Your task to perform on an android device: delete the emails in spam in the gmail app Image 0: 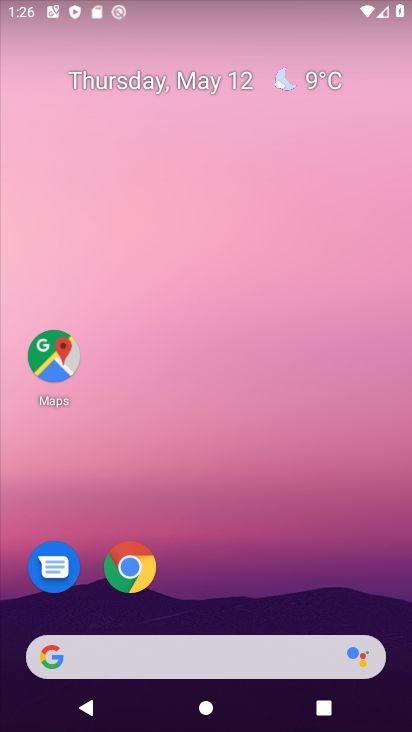
Step 0: drag from (232, 597) to (237, 42)
Your task to perform on an android device: delete the emails in spam in the gmail app Image 1: 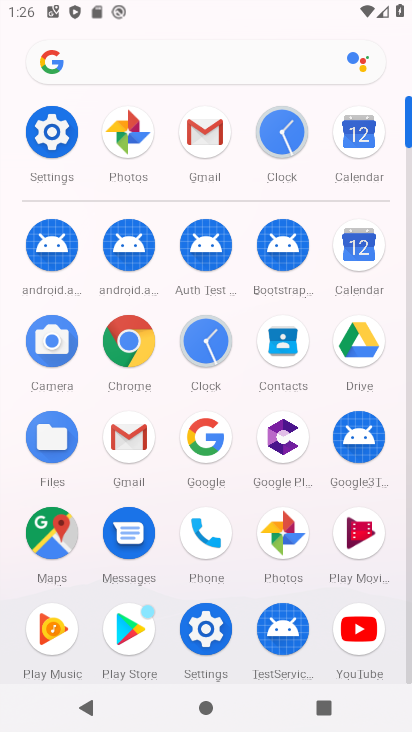
Step 1: click (128, 428)
Your task to perform on an android device: delete the emails in spam in the gmail app Image 2: 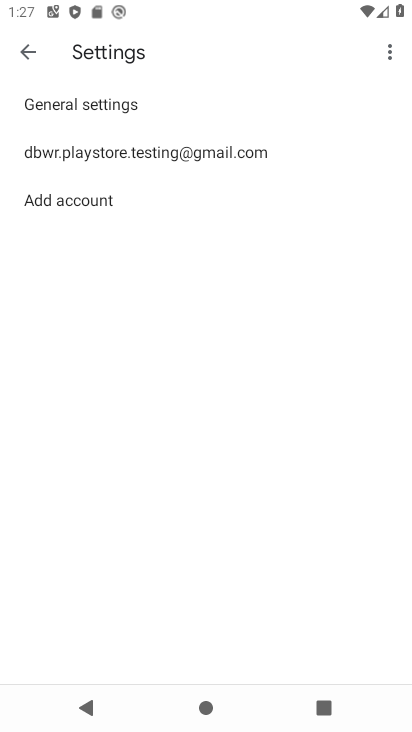
Step 2: click (36, 52)
Your task to perform on an android device: delete the emails in spam in the gmail app Image 3: 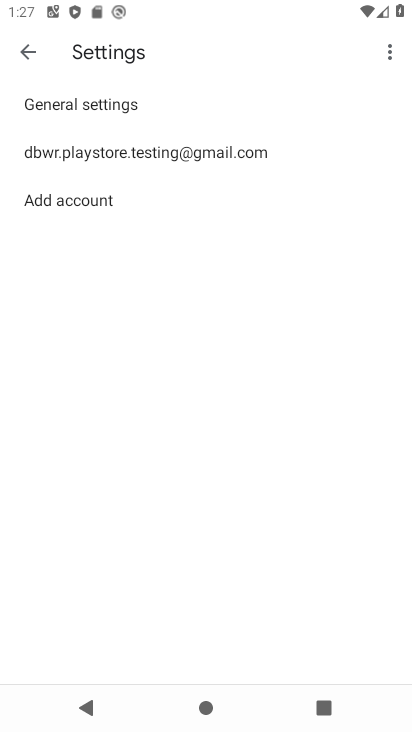
Step 3: click (25, 52)
Your task to perform on an android device: delete the emails in spam in the gmail app Image 4: 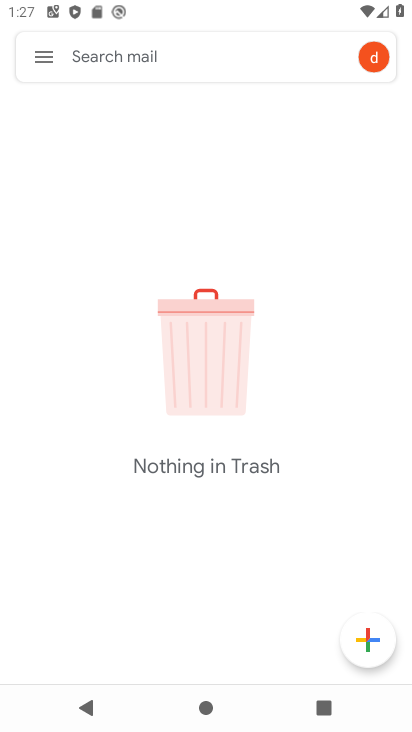
Step 4: click (51, 52)
Your task to perform on an android device: delete the emails in spam in the gmail app Image 5: 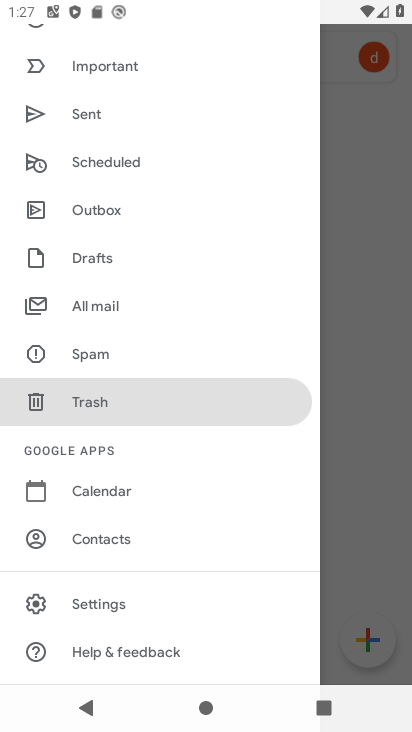
Step 5: click (117, 351)
Your task to perform on an android device: delete the emails in spam in the gmail app Image 6: 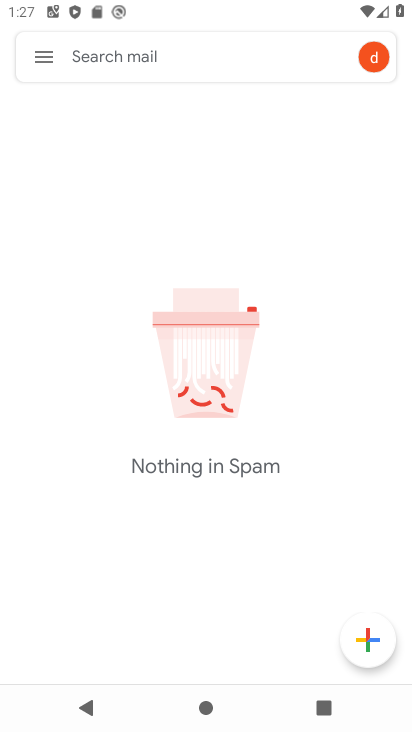
Step 6: task complete